Your task to perform on an android device: Is it going to rain tomorrow? Image 0: 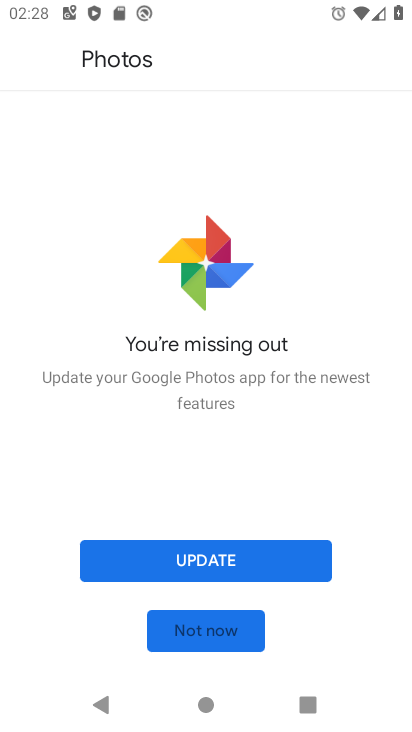
Step 0: press home button
Your task to perform on an android device: Is it going to rain tomorrow? Image 1: 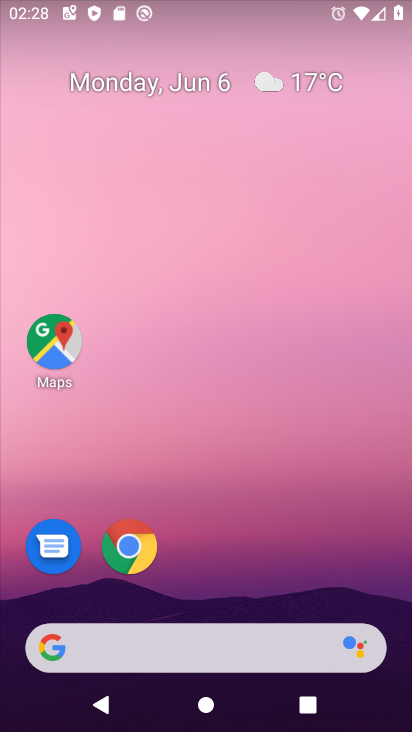
Step 1: click (122, 534)
Your task to perform on an android device: Is it going to rain tomorrow? Image 2: 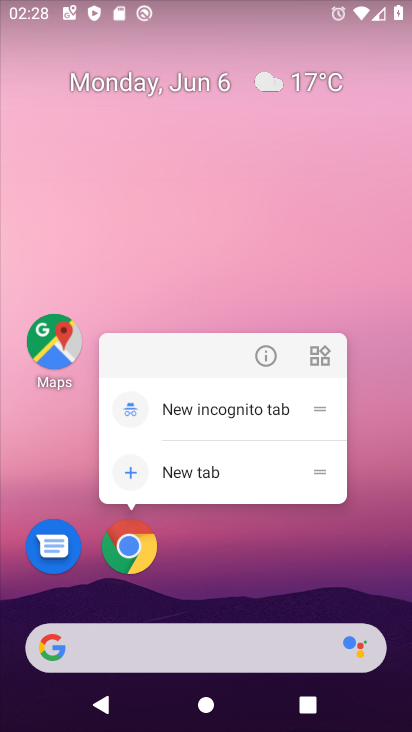
Step 2: click (123, 531)
Your task to perform on an android device: Is it going to rain tomorrow? Image 3: 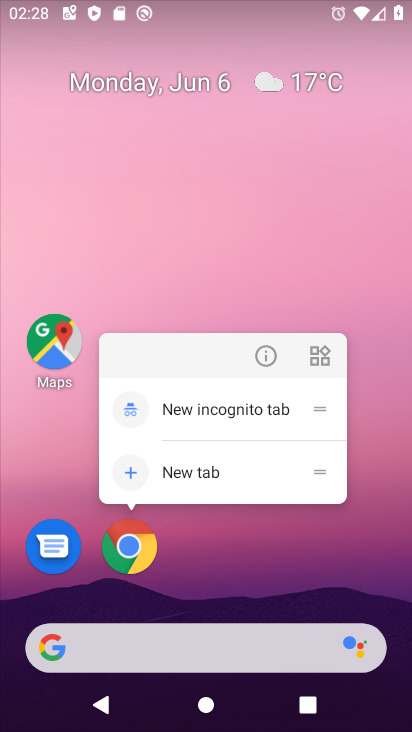
Step 3: click (127, 537)
Your task to perform on an android device: Is it going to rain tomorrow? Image 4: 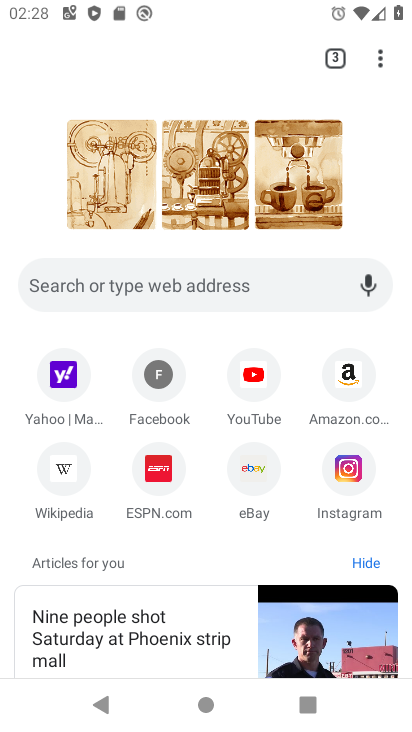
Step 4: click (73, 275)
Your task to perform on an android device: Is it going to rain tomorrow? Image 5: 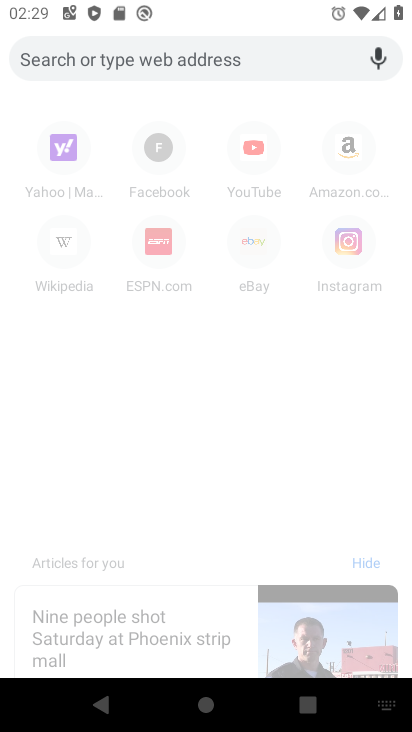
Step 5: click (147, 48)
Your task to perform on an android device: Is it going to rain tomorrow? Image 6: 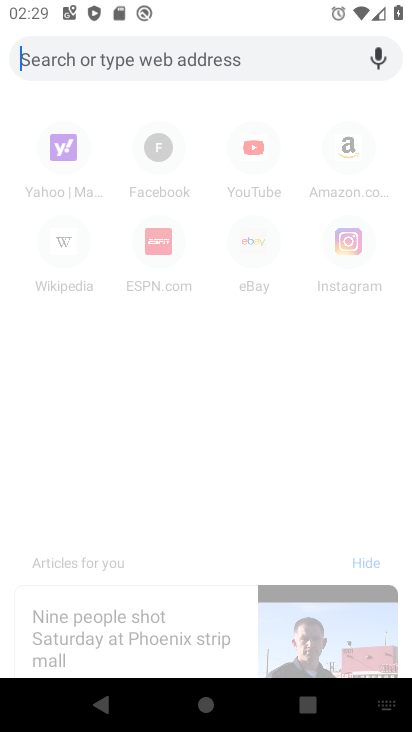
Step 6: type "Is it going to rain tomorrow?"
Your task to perform on an android device: Is it going to rain tomorrow? Image 7: 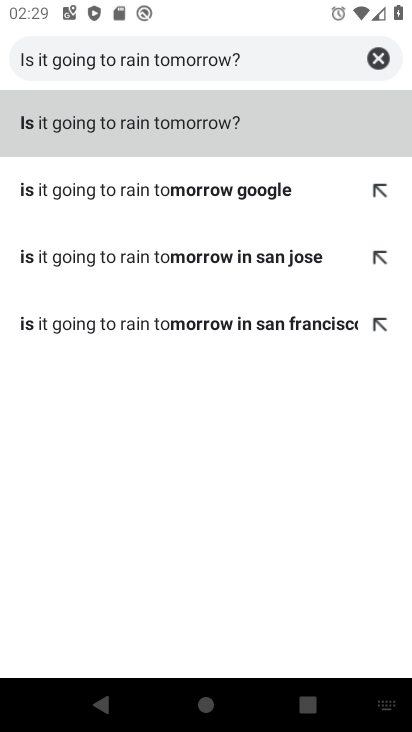
Step 7: click (277, 132)
Your task to perform on an android device: Is it going to rain tomorrow? Image 8: 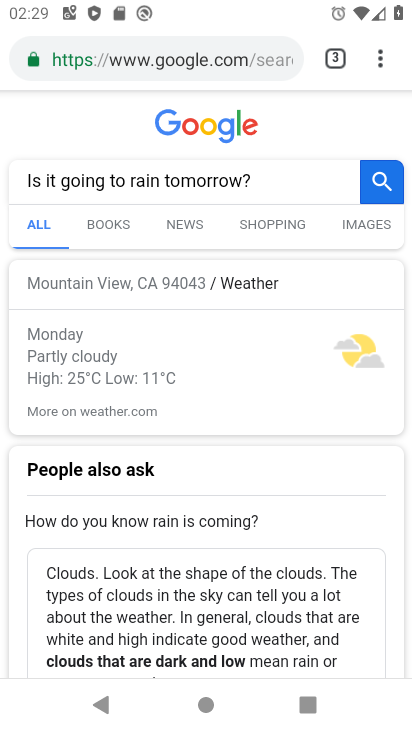
Step 8: task complete